Your task to perform on an android device: Clear the cart on walmart. Search for "usb-c to usb-a" on walmart, select the first entry, and add it to the cart. Image 0: 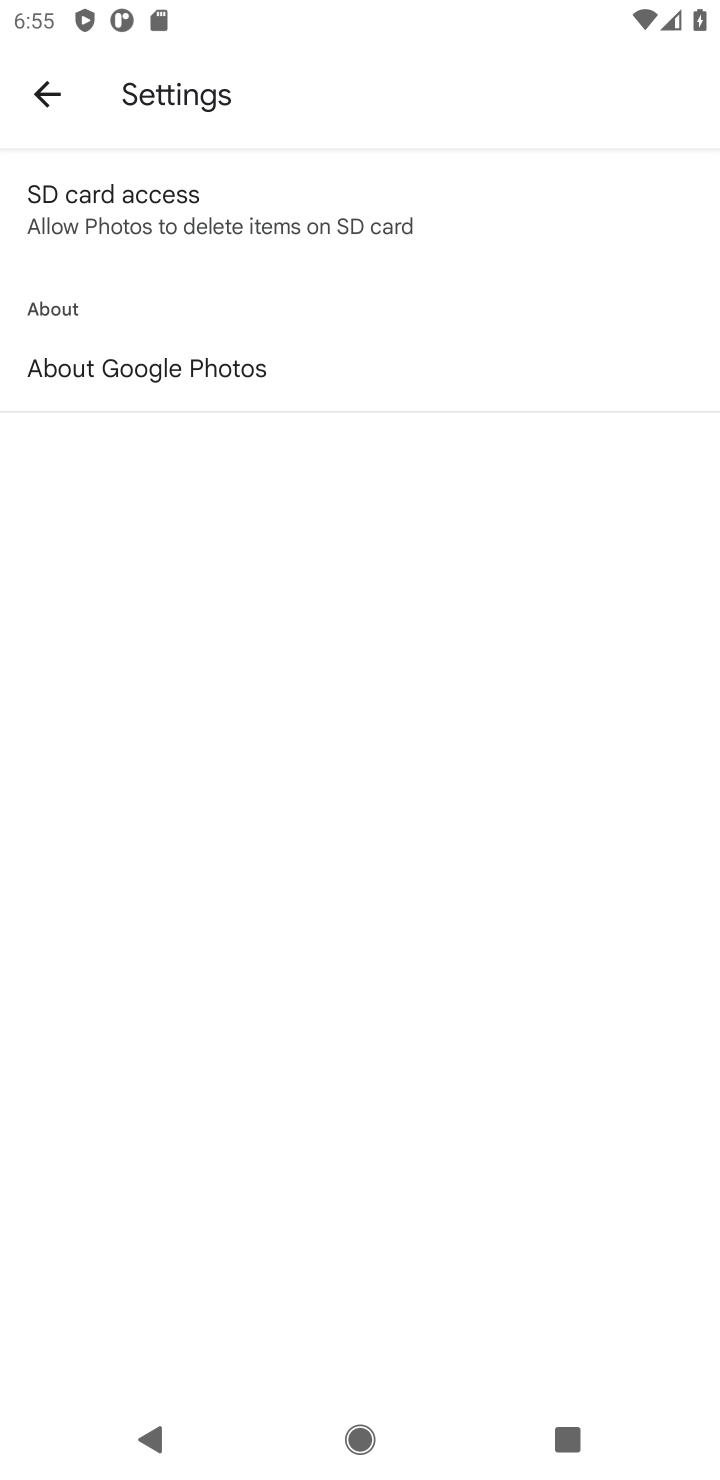
Step 0: press home button
Your task to perform on an android device: Clear the cart on walmart. Search for "usb-c to usb-a" on walmart, select the first entry, and add it to the cart. Image 1: 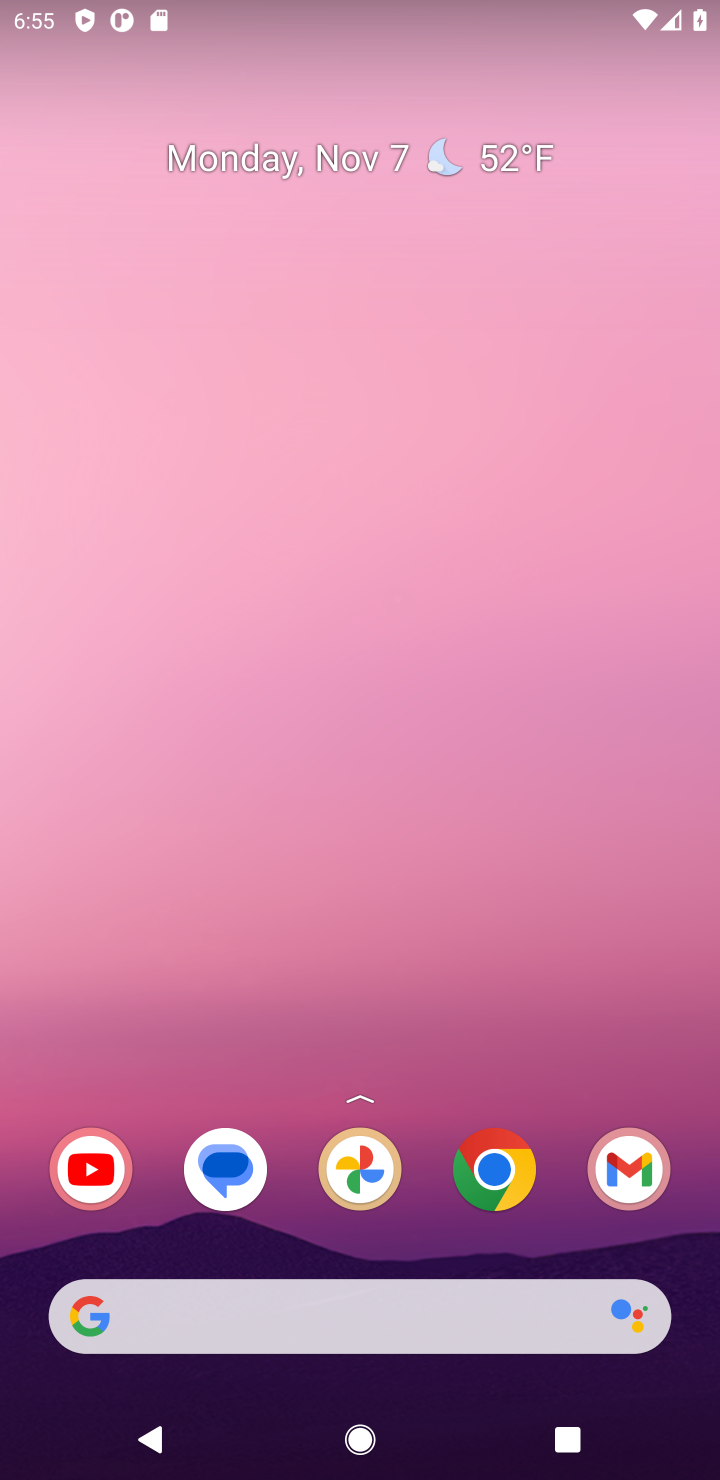
Step 1: click (489, 1158)
Your task to perform on an android device: Clear the cart on walmart. Search for "usb-c to usb-a" on walmart, select the first entry, and add it to the cart. Image 2: 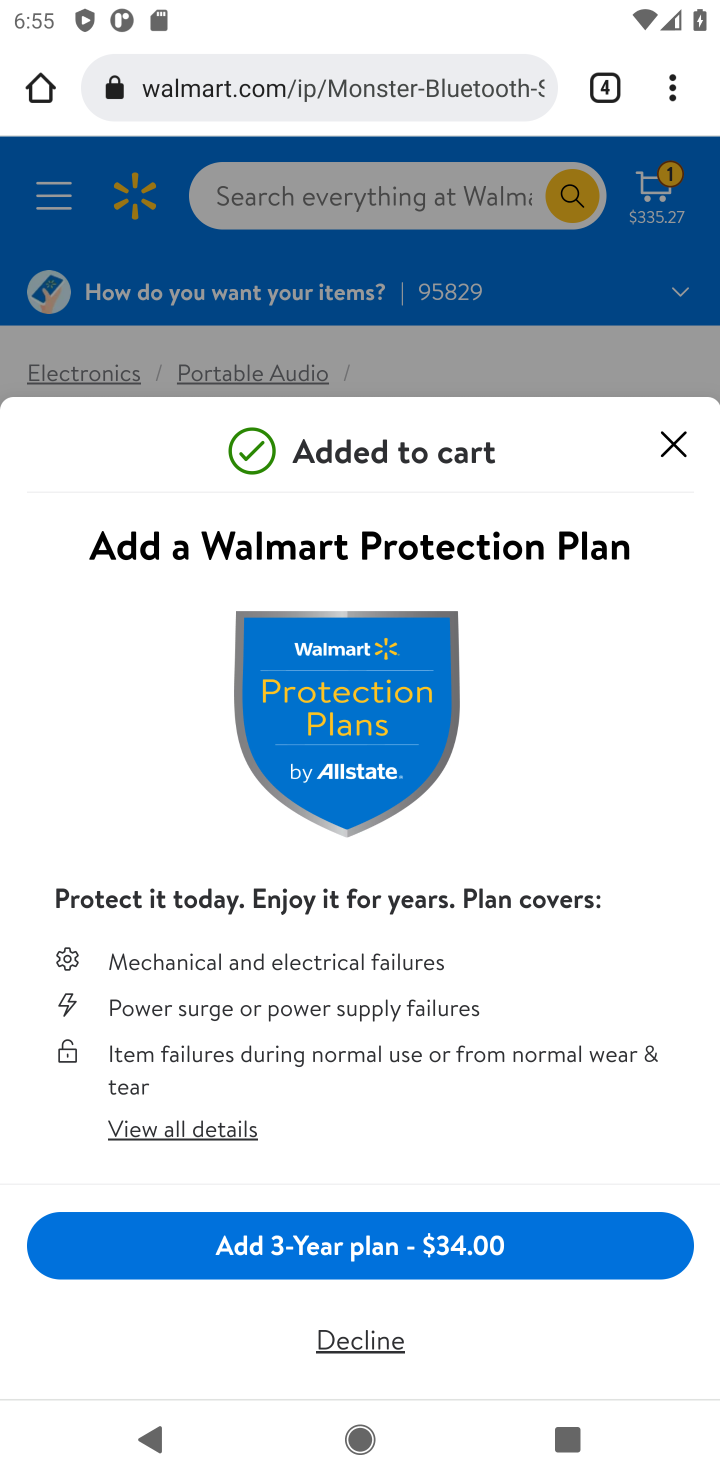
Step 2: click (680, 446)
Your task to perform on an android device: Clear the cart on walmart. Search for "usb-c to usb-a" on walmart, select the first entry, and add it to the cart. Image 3: 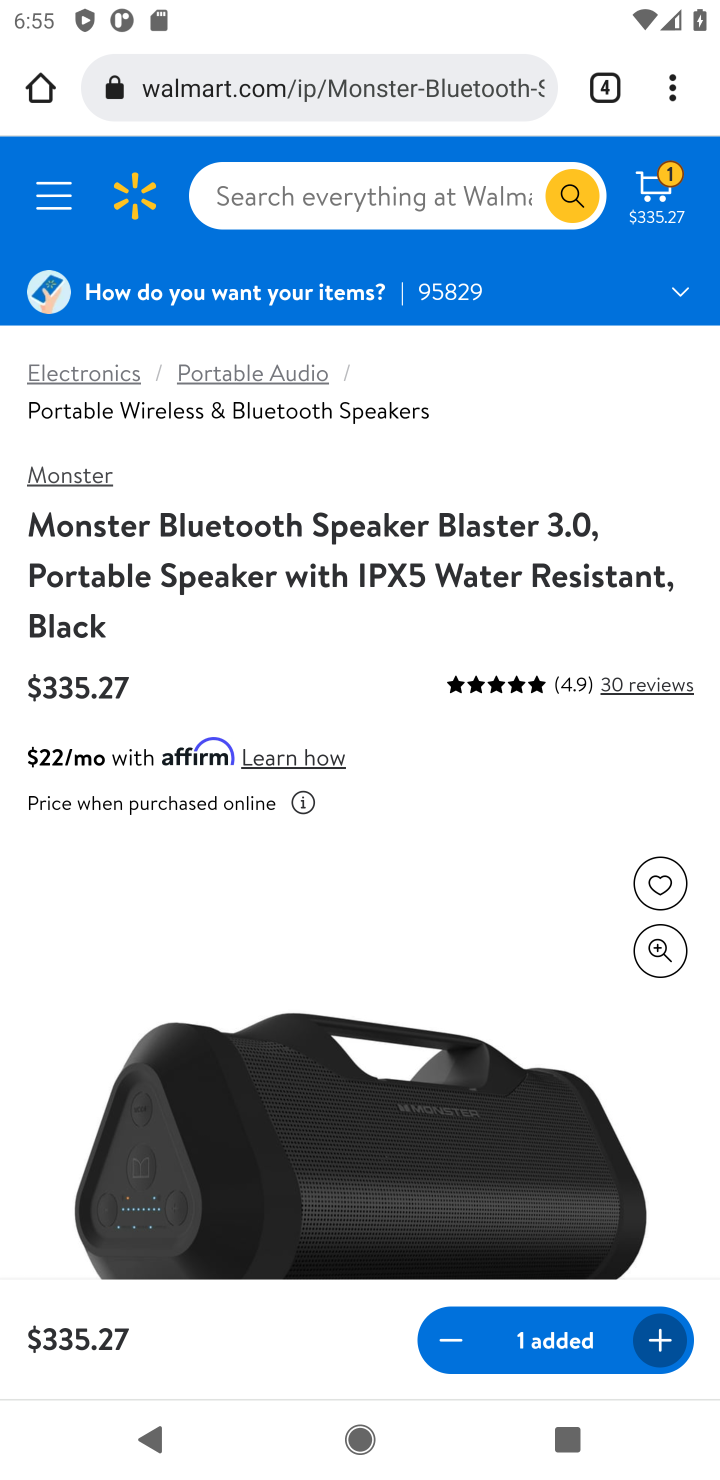
Step 3: click (312, 206)
Your task to perform on an android device: Clear the cart on walmart. Search for "usb-c to usb-a" on walmart, select the first entry, and add it to the cart. Image 4: 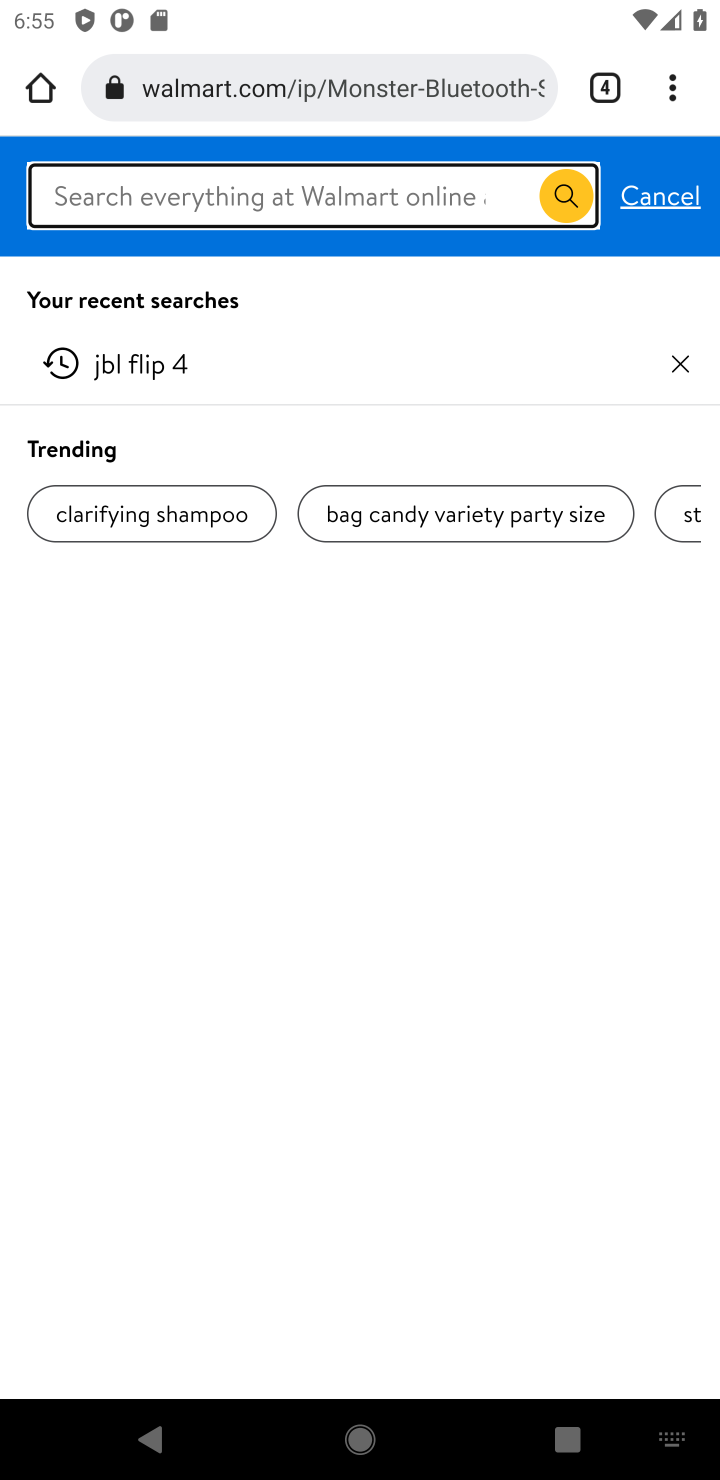
Step 4: type "usb-c to usb-a"
Your task to perform on an android device: Clear the cart on walmart. Search for "usb-c to usb-a" on walmart, select the first entry, and add it to the cart. Image 5: 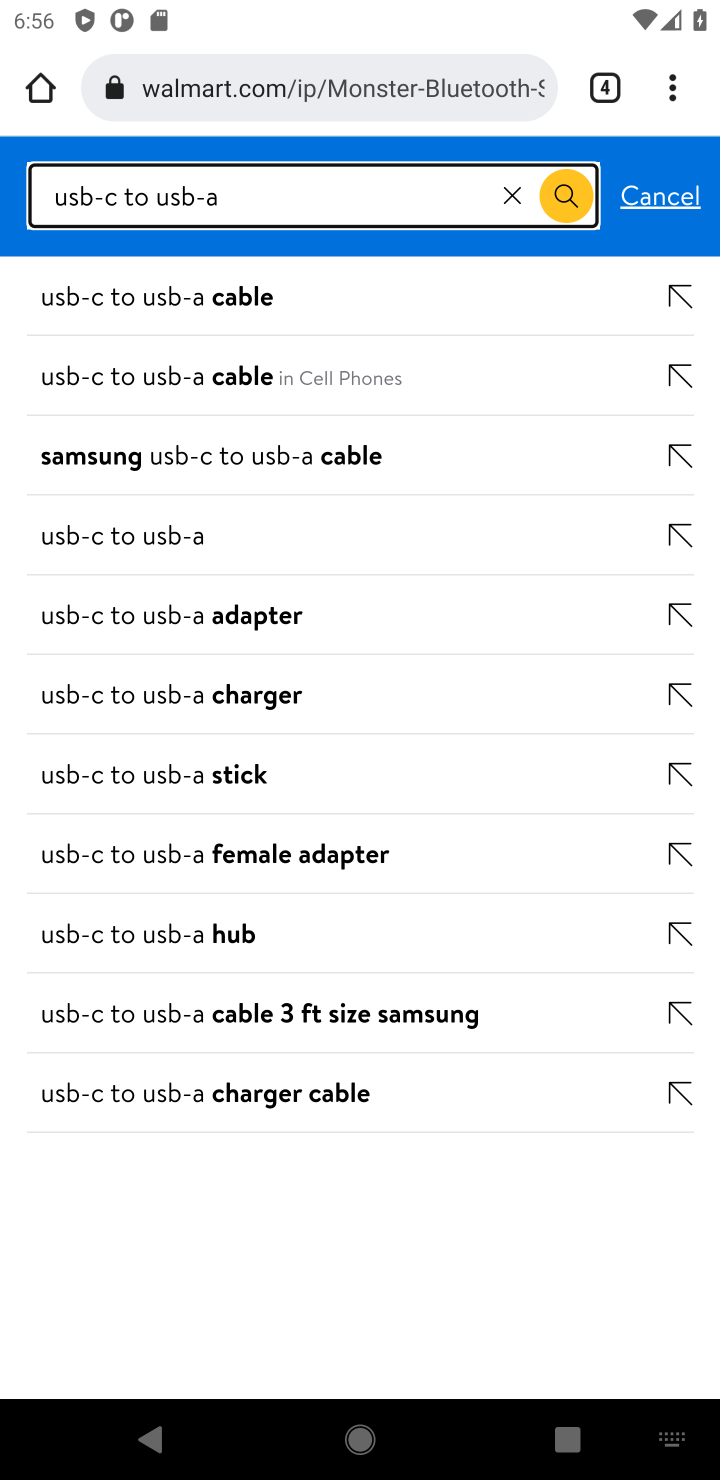
Step 5: click (329, 374)
Your task to perform on an android device: Clear the cart on walmart. Search for "usb-c to usb-a" on walmart, select the first entry, and add it to the cart. Image 6: 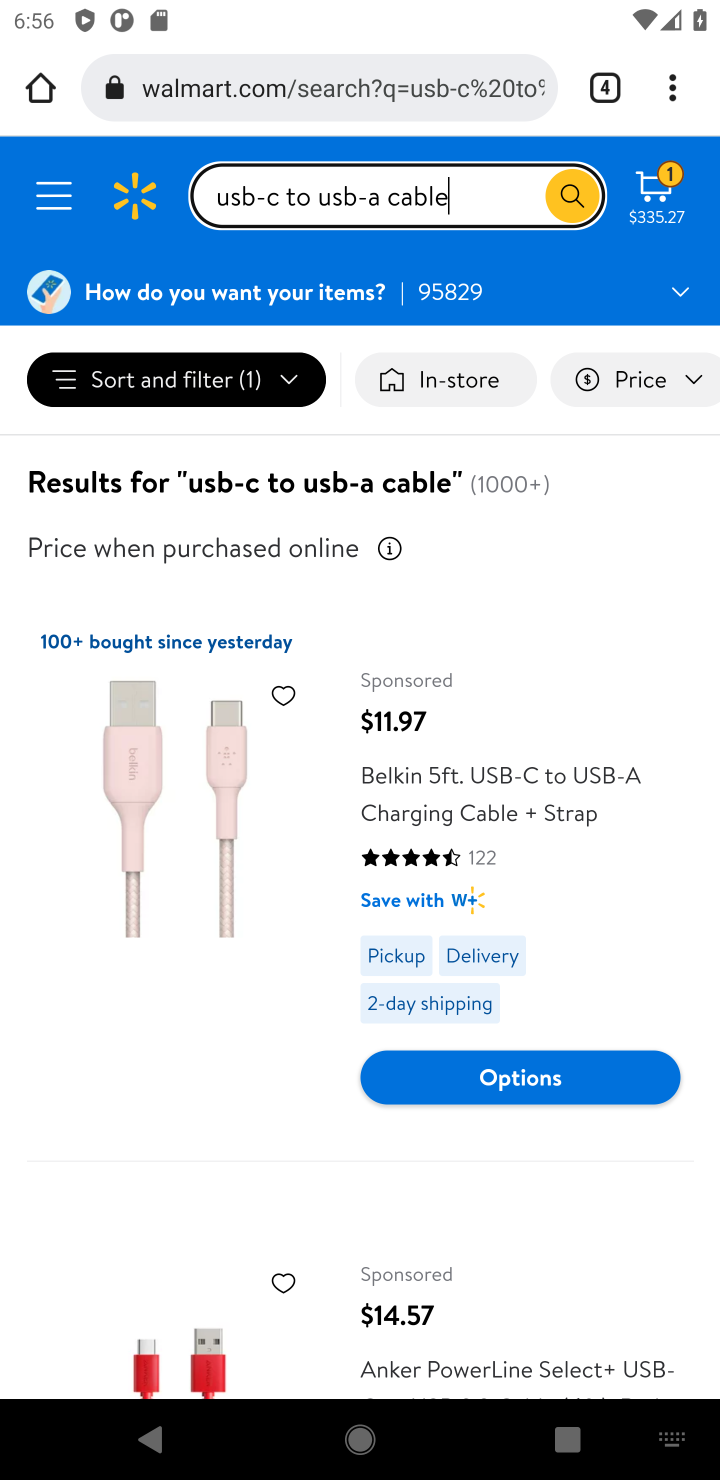
Step 6: click (520, 811)
Your task to perform on an android device: Clear the cart on walmart. Search for "usb-c to usb-a" on walmart, select the first entry, and add it to the cart. Image 7: 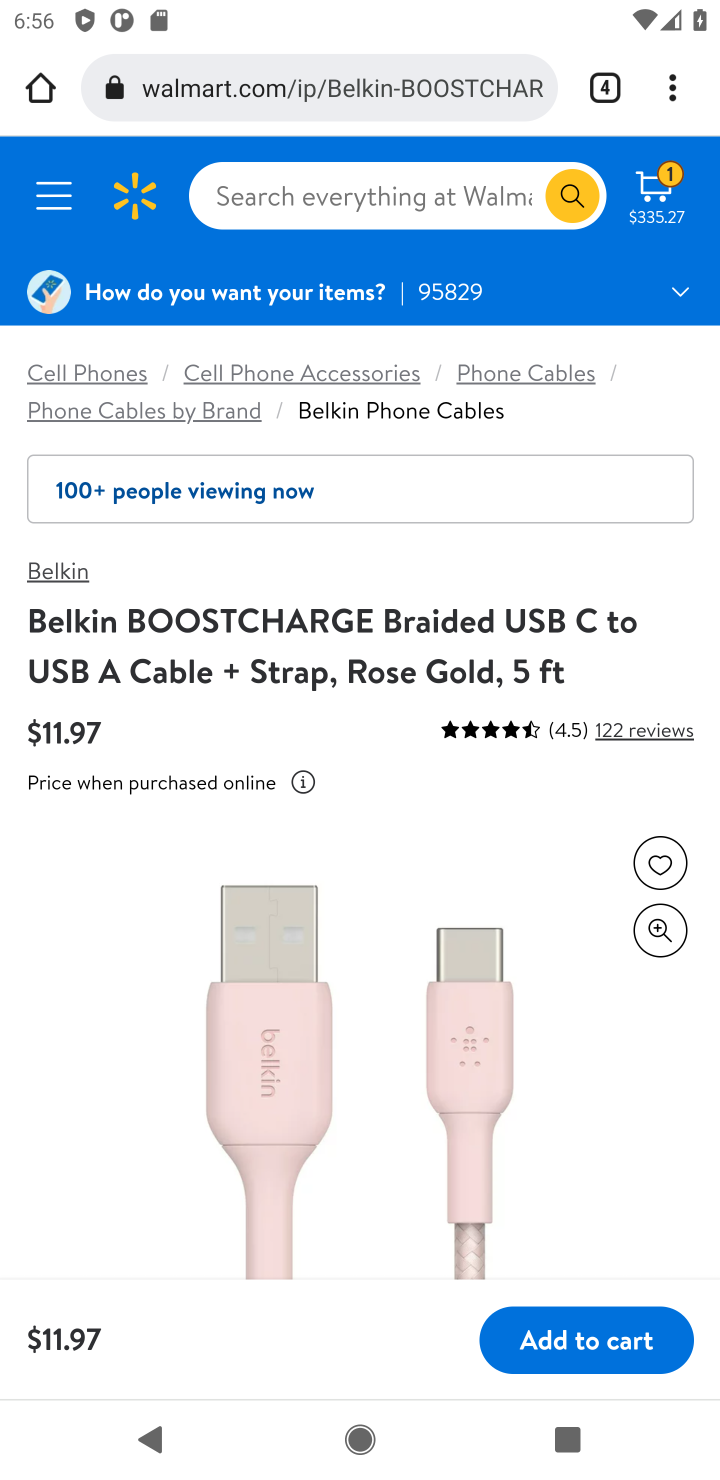
Step 7: click (592, 1322)
Your task to perform on an android device: Clear the cart on walmart. Search for "usb-c to usb-a" on walmart, select the first entry, and add it to the cart. Image 8: 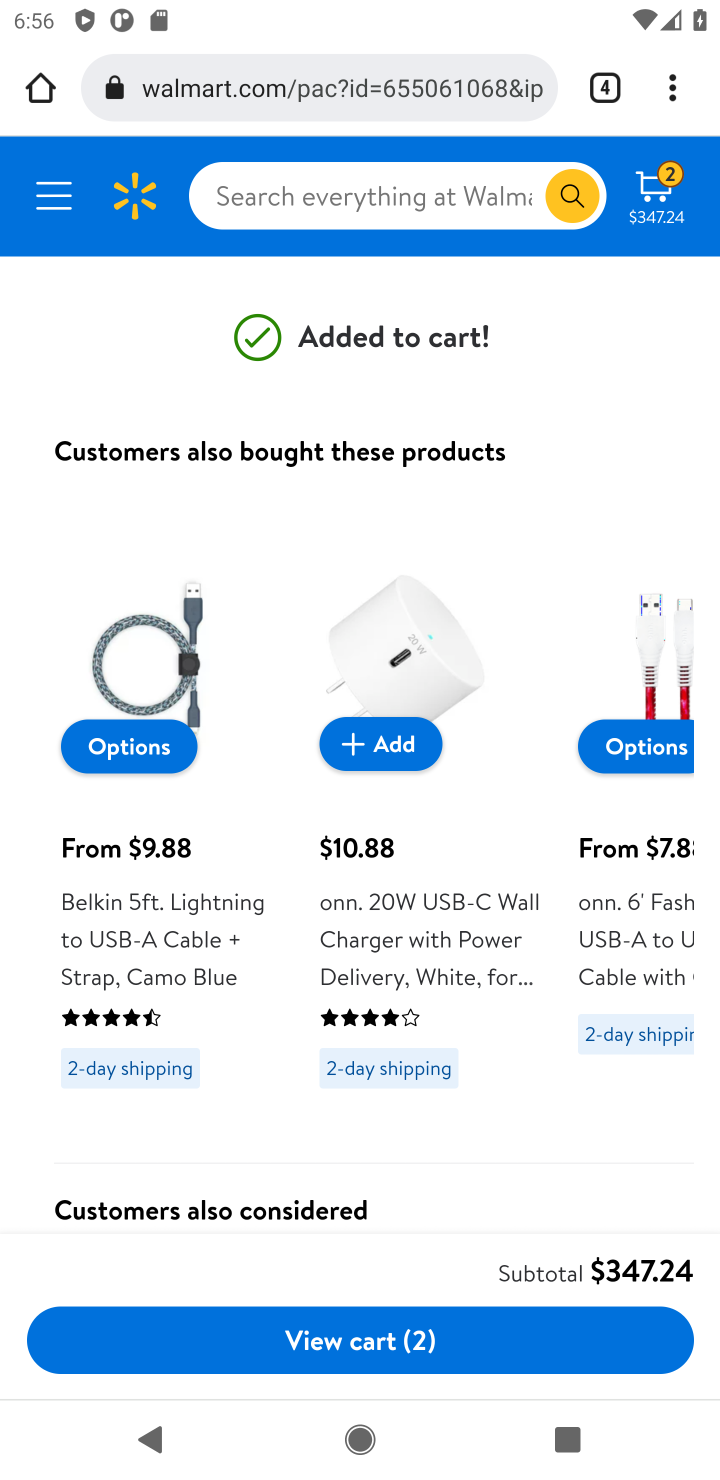
Step 8: task complete